Your task to perform on an android device: visit the assistant section in the google photos Image 0: 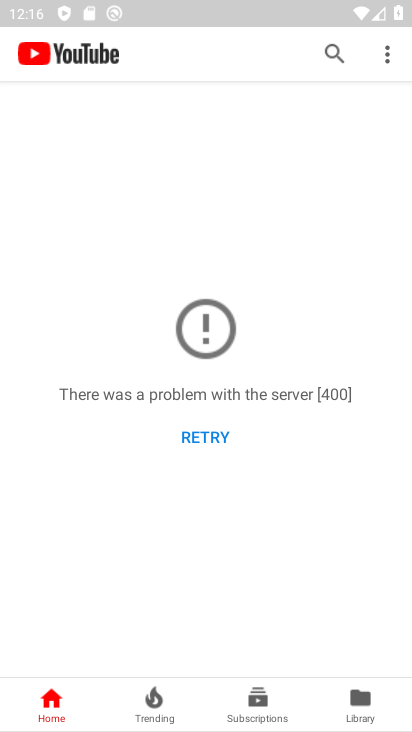
Step 0: press home button
Your task to perform on an android device: visit the assistant section in the google photos Image 1: 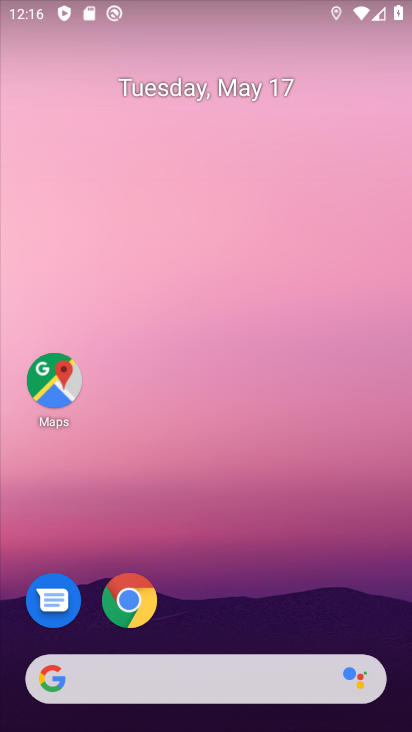
Step 1: drag from (376, 475) to (370, 368)
Your task to perform on an android device: visit the assistant section in the google photos Image 2: 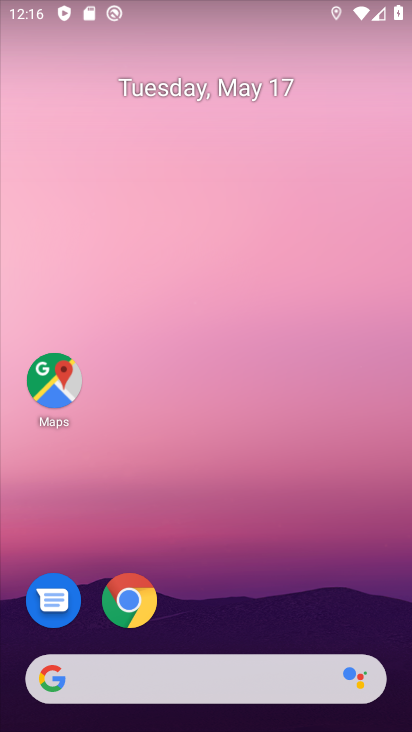
Step 2: drag from (379, 358) to (378, 225)
Your task to perform on an android device: visit the assistant section in the google photos Image 3: 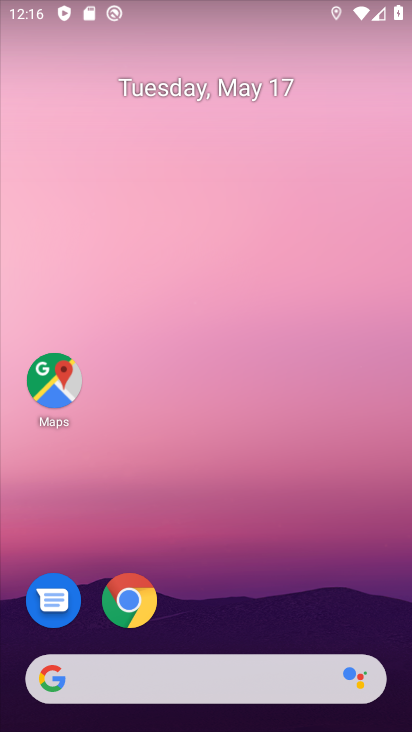
Step 3: click (355, 371)
Your task to perform on an android device: visit the assistant section in the google photos Image 4: 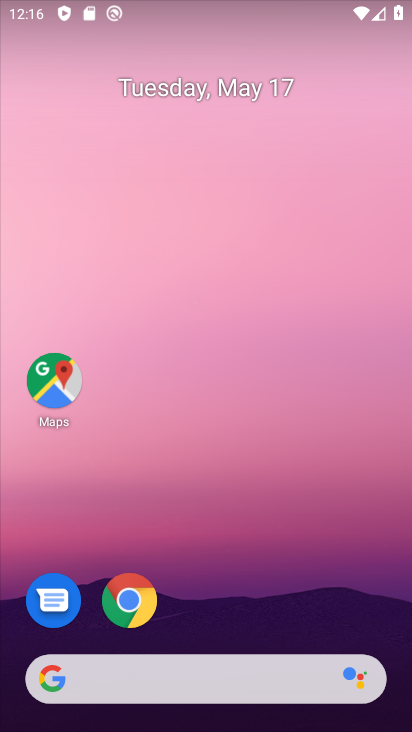
Step 4: drag from (374, 572) to (386, 303)
Your task to perform on an android device: visit the assistant section in the google photos Image 5: 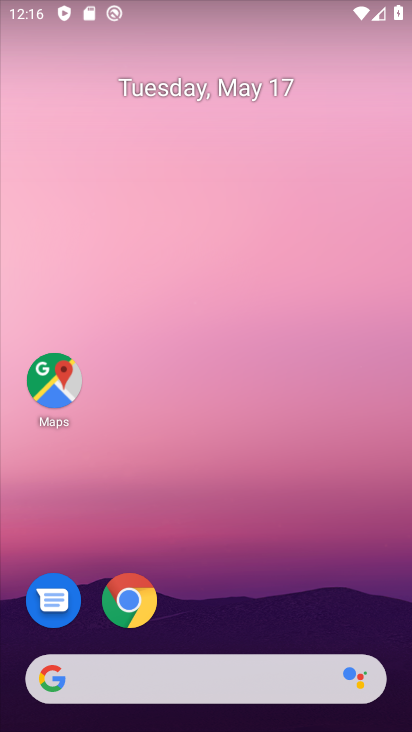
Step 5: drag from (375, 623) to (372, 357)
Your task to perform on an android device: visit the assistant section in the google photos Image 6: 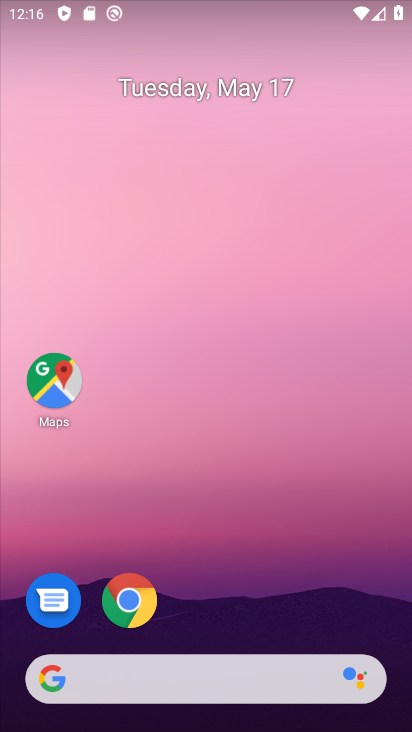
Step 6: drag from (369, 537) to (365, 420)
Your task to perform on an android device: visit the assistant section in the google photos Image 7: 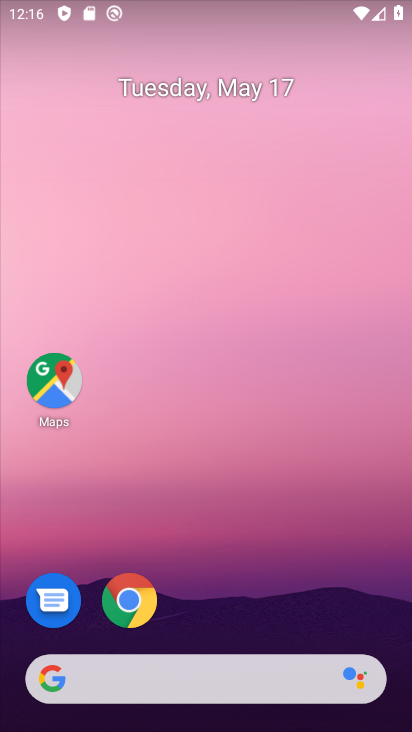
Step 7: drag from (404, 664) to (355, 312)
Your task to perform on an android device: visit the assistant section in the google photos Image 8: 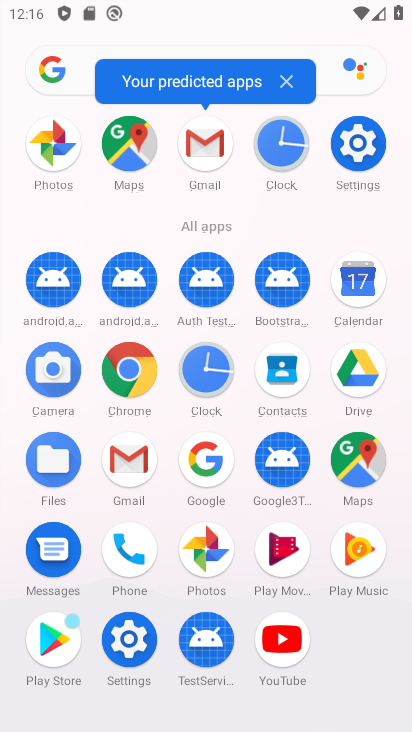
Step 8: click (189, 556)
Your task to perform on an android device: visit the assistant section in the google photos Image 9: 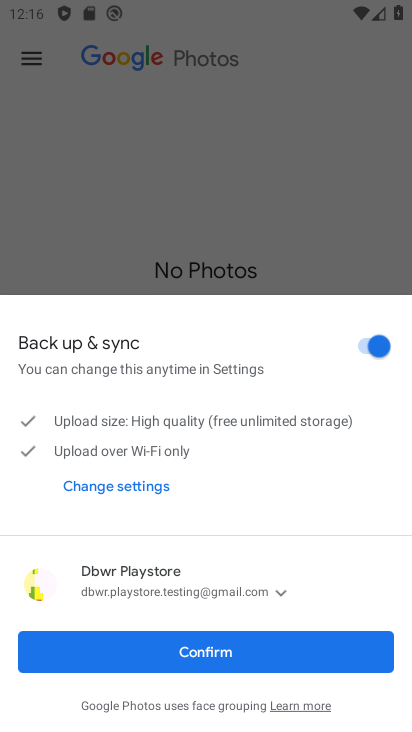
Step 9: click (237, 650)
Your task to perform on an android device: visit the assistant section in the google photos Image 10: 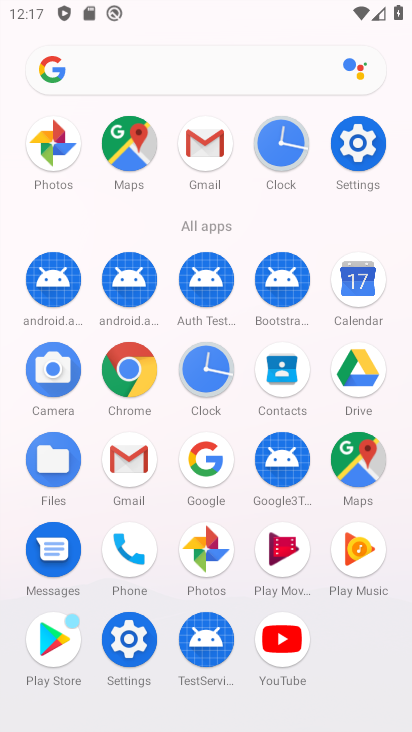
Step 10: click (213, 545)
Your task to perform on an android device: visit the assistant section in the google photos Image 11: 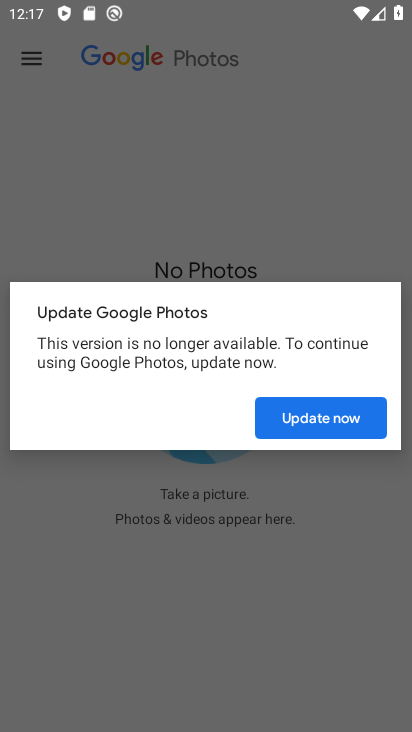
Step 11: click (302, 415)
Your task to perform on an android device: visit the assistant section in the google photos Image 12: 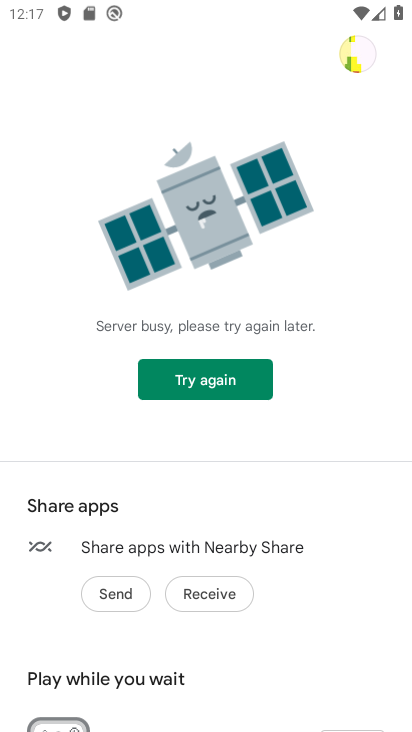
Step 12: task complete